Your task to perform on an android device: Open my contact list Image 0: 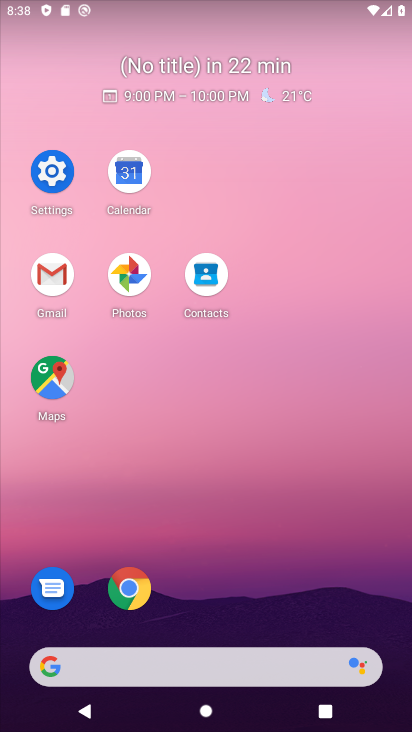
Step 0: click (211, 280)
Your task to perform on an android device: Open my contact list Image 1: 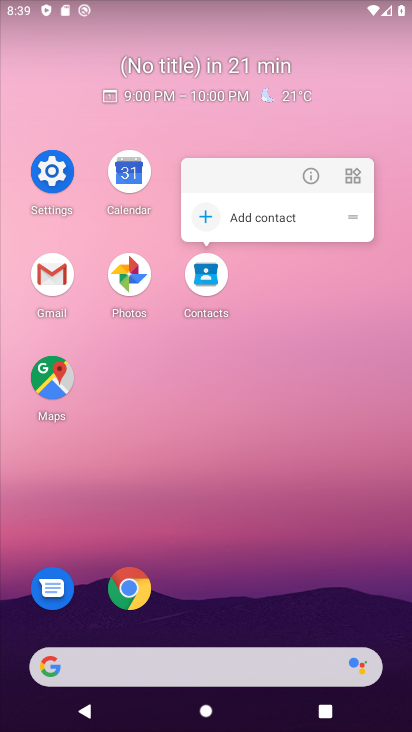
Step 1: click (201, 275)
Your task to perform on an android device: Open my contact list Image 2: 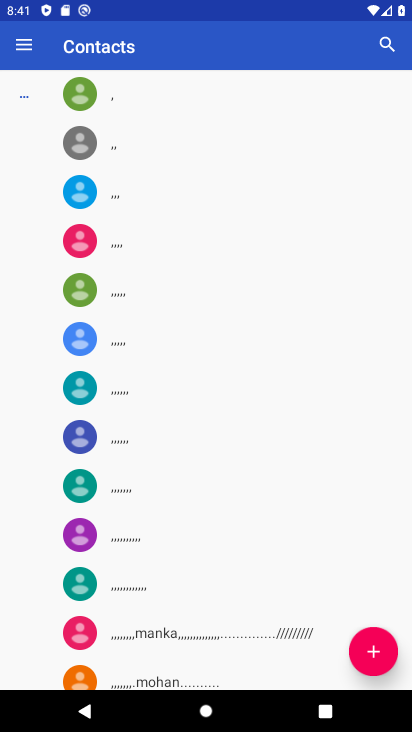
Step 2: task complete